Your task to perform on an android device: Go to display settings Image 0: 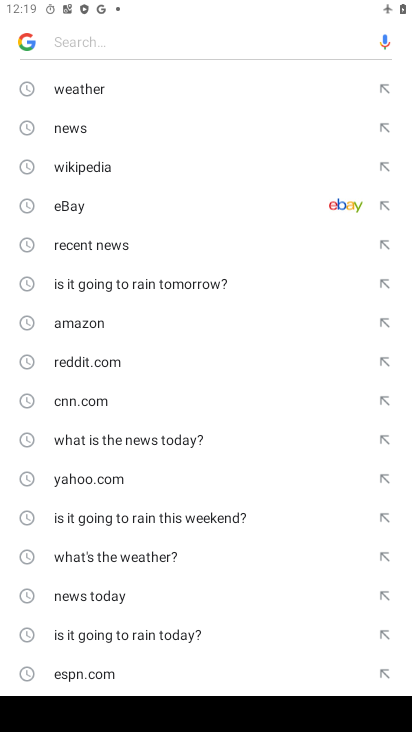
Step 0: drag from (200, 468) to (303, 208)
Your task to perform on an android device: Go to display settings Image 1: 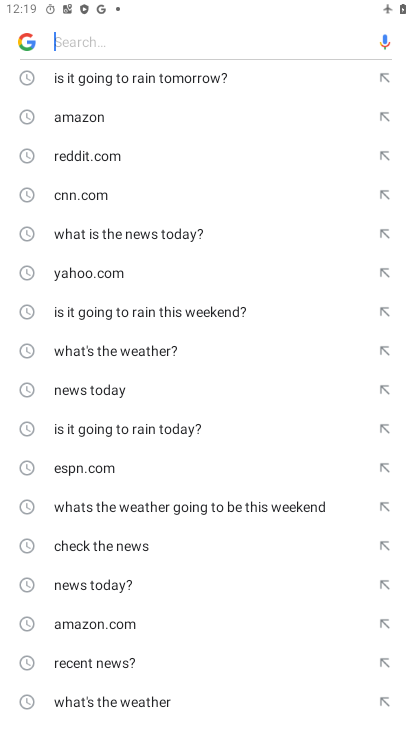
Step 1: press home button
Your task to perform on an android device: Go to display settings Image 2: 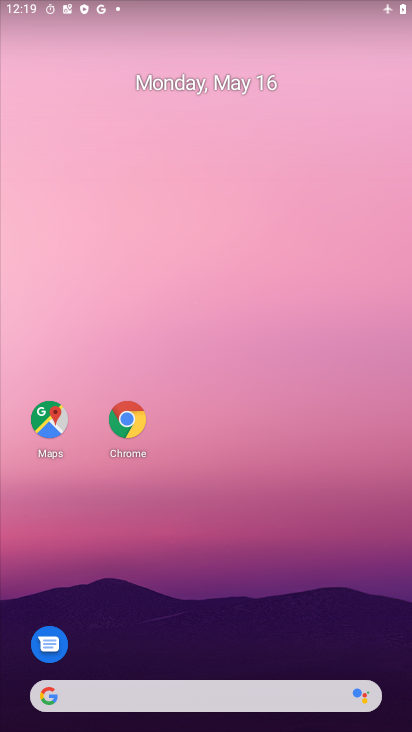
Step 2: drag from (216, 627) to (232, 225)
Your task to perform on an android device: Go to display settings Image 3: 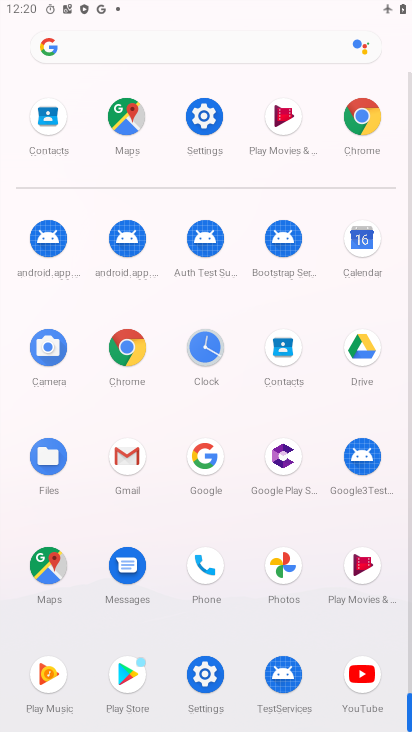
Step 3: click (197, 118)
Your task to perform on an android device: Go to display settings Image 4: 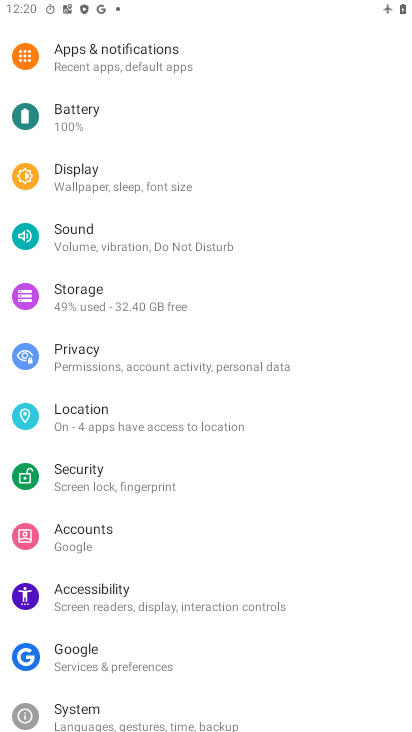
Step 4: click (141, 166)
Your task to perform on an android device: Go to display settings Image 5: 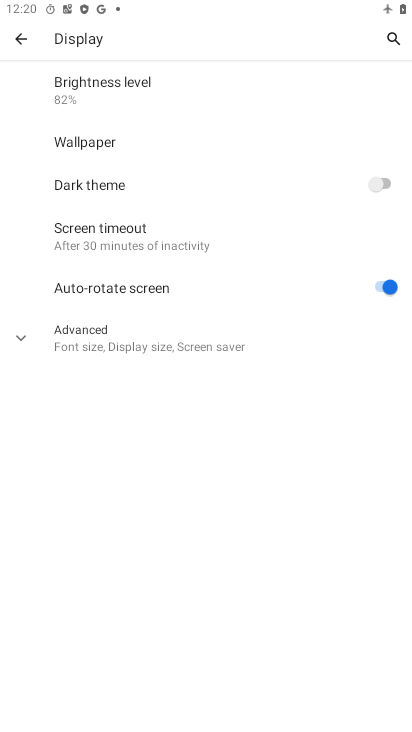
Step 5: task complete